Your task to perform on an android device: turn on showing notifications on the lock screen Image 0: 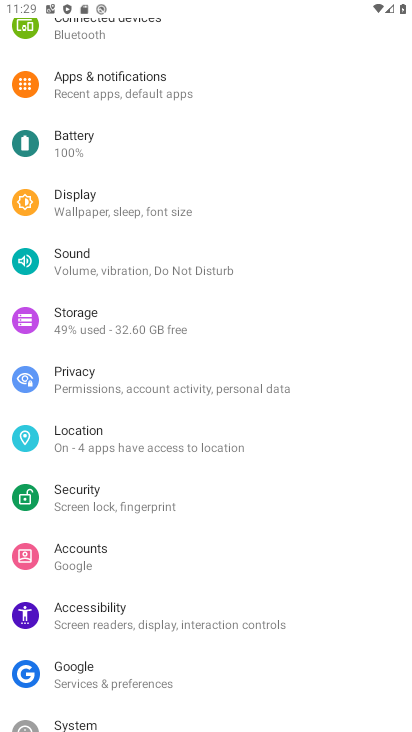
Step 0: press home button
Your task to perform on an android device: turn on showing notifications on the lock screen Image 1: 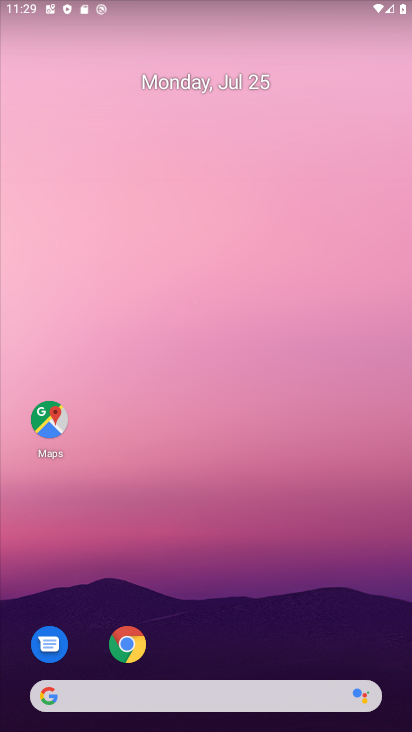
Step 1: drag from (288, 676) to (8, 683)
Your task to perform on an android device: turn on showing notifications on the lock screen Image 2: 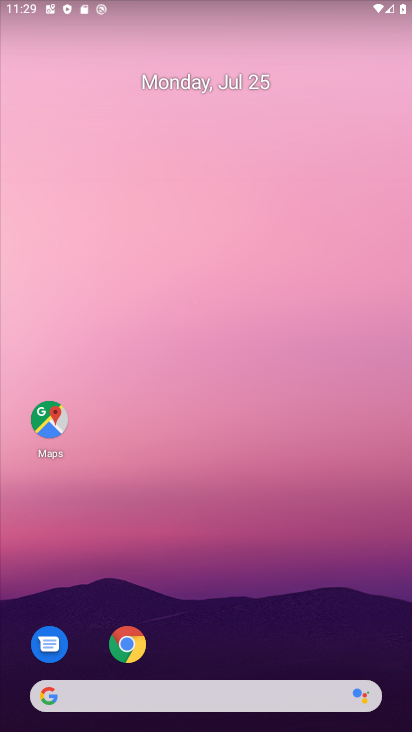
Step 2: drag from (232, 681) to (224, 135)
Your task to perform on an android device: turn on showing notifications on the lock screen Image 3: 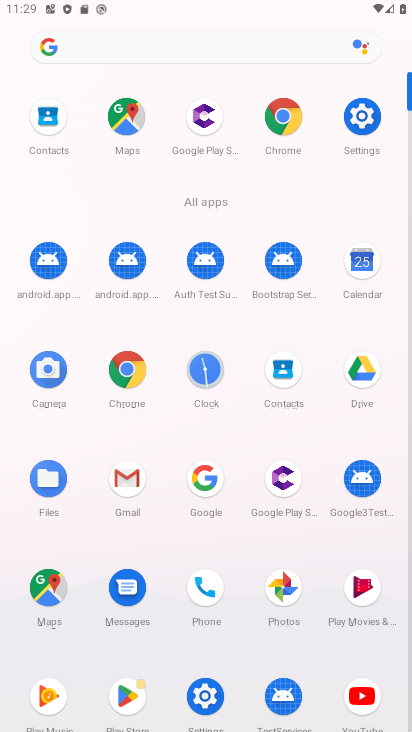
Step 3: click (361, 133)
Your task to perform on an android device: turn on showing notifications on the lock screen Image 4: 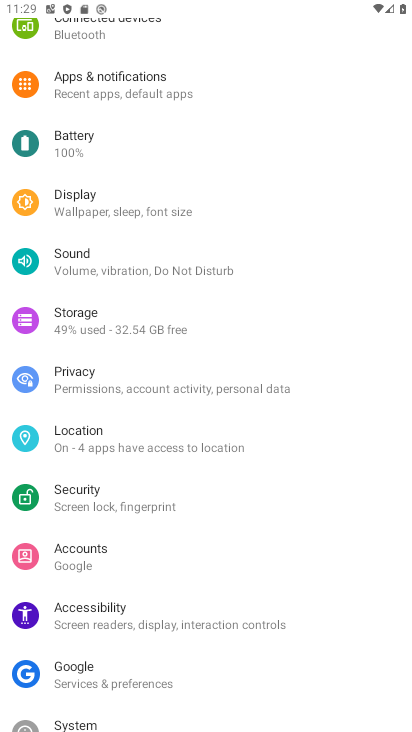
Step 4: click (146, 102)
Your task to perform on an android device: turn on showing notifications on the lock screen Image 5: 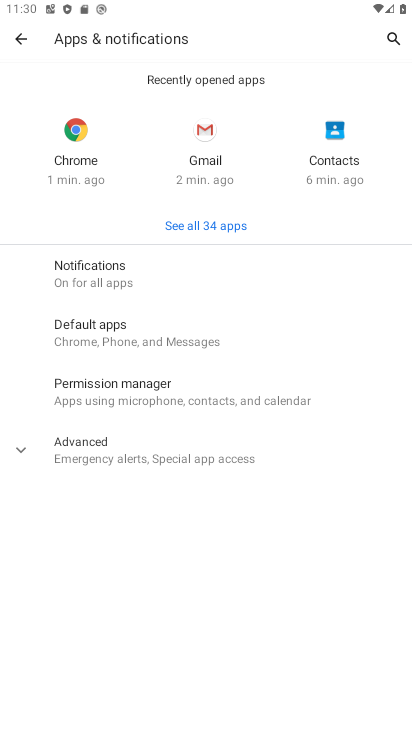
Step 5: click (137, 278)
Your task to perform on an android device: turn on showing notifications on the lock screen Image 6: 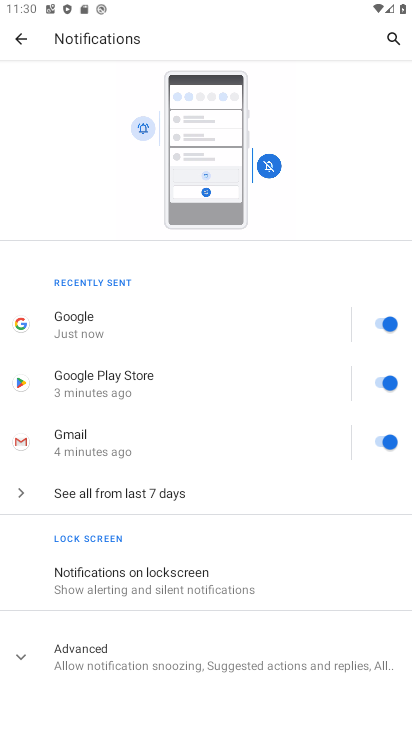
Step 6: click (140, 575)
Your task to perform on an android device: turn on showing notifications on the lock screen Image 7: 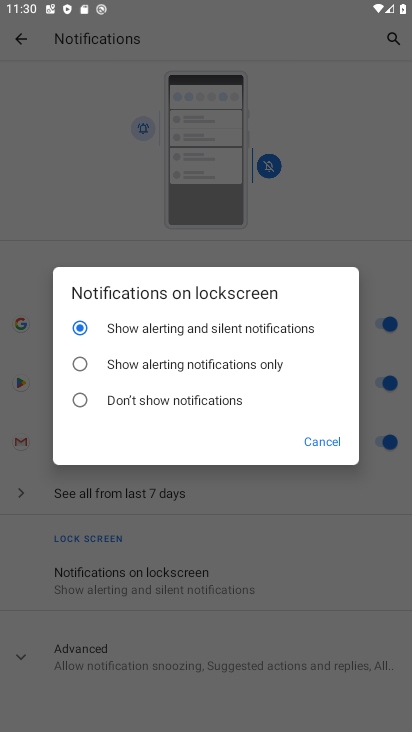
Step 7: task complete